Your task to perform on an android device: toggle javascript in the chrome app Image 0: 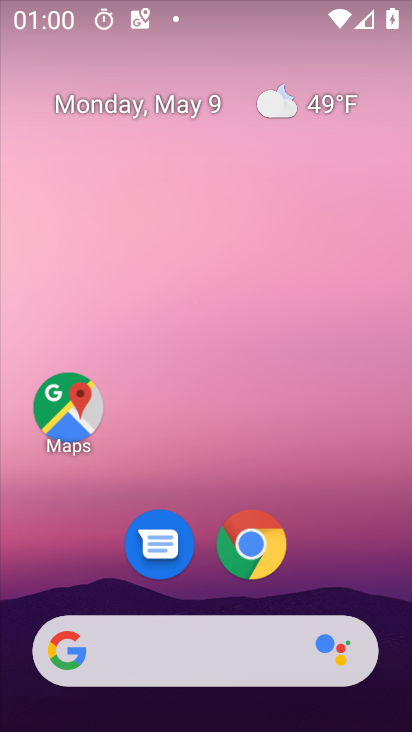
Step 0: click (251, 530)
Your task to perform on an android device: toggle javascript in the chrome app Image 1: 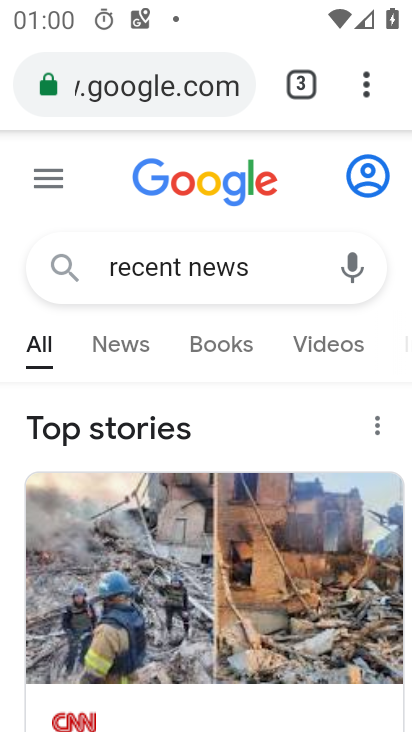
Step 1: drag from (364, 87) to (155, 597)
Your task to perform on an android device: toggle javascript in the chrome app Image 2: 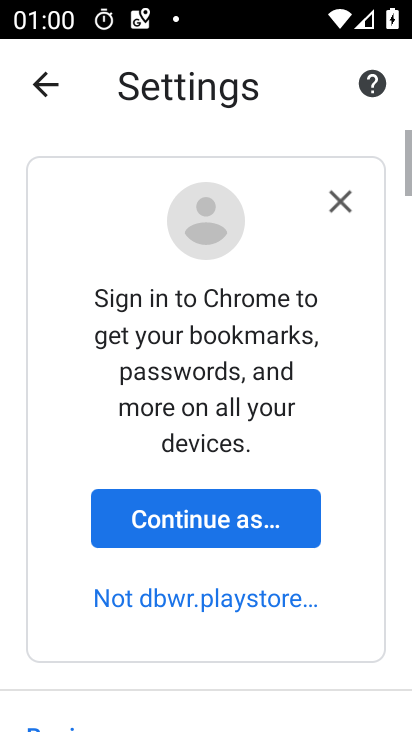
Step 2: drag from (280, 648) to (155, 4)
Your task to perform on an android device: toggle javascript in the chrome app Image 3: 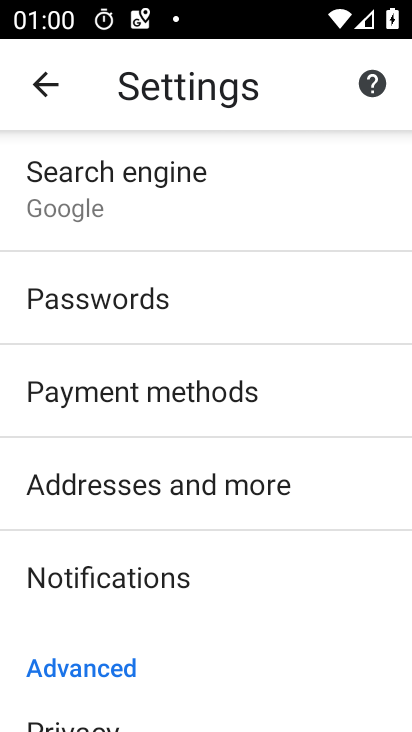
Step 3: drag from (198, 657) to (258, 112)
Your task to perform on an android device: toggle javascript in the chrome app Image 4: 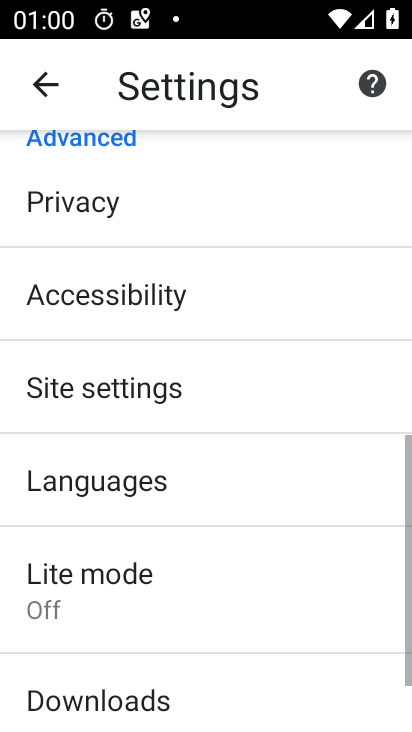
Step 4: click (215, 410)
Your task to perform on an android device: toggle javascript in the chrome app Image 5: 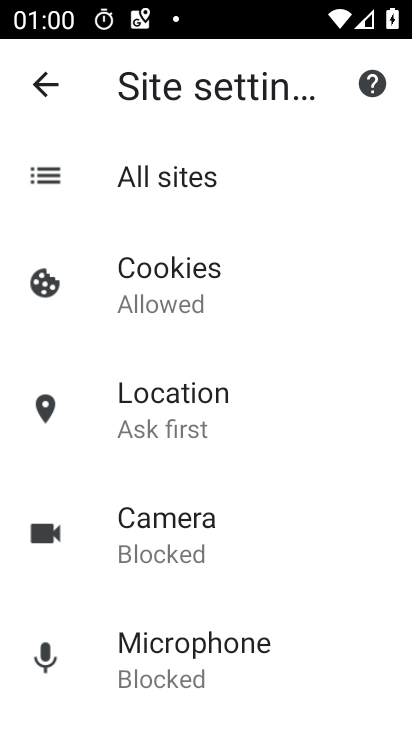
Step 5: drag from (168, 678) to (210, 128)
Your task to perform on an android device: toggle javascript in the chrome app Image 6: 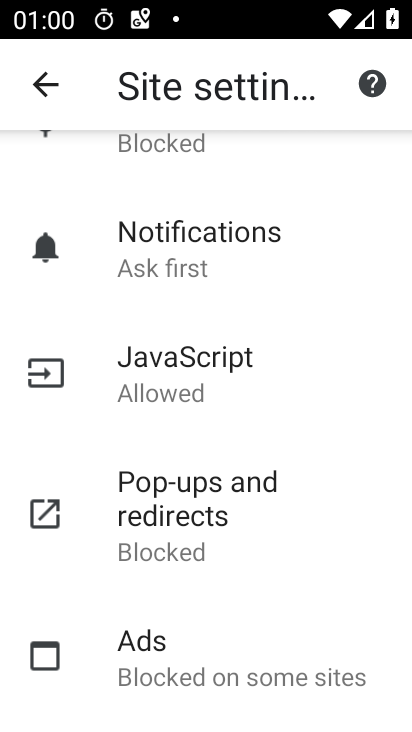
Step 6: click (199, 362)
Your task to perform on an android device: toggle javascript in the chrome app Image 7: 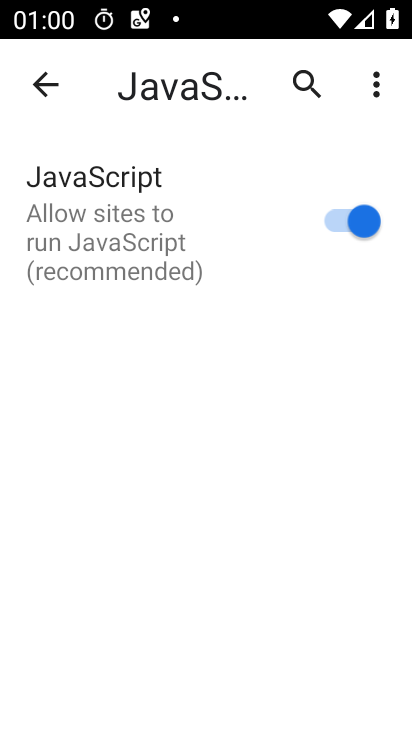
Step 7: click (337, 214)
Your task to perform on an android device: toggle javascript in the chrome app Image 8: 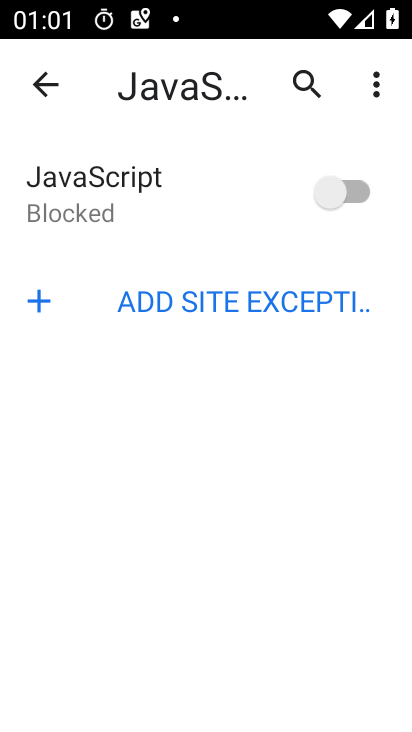
Step 8: task complete